Your task to perform on an android device: check google app version Image 0: 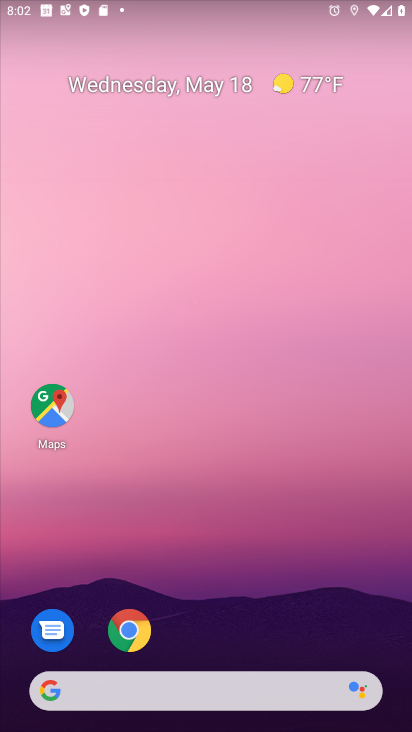
Step 0: drag from (255, 598) to (310, 289)
Your task to perform on an android device: check google app version Image 1: 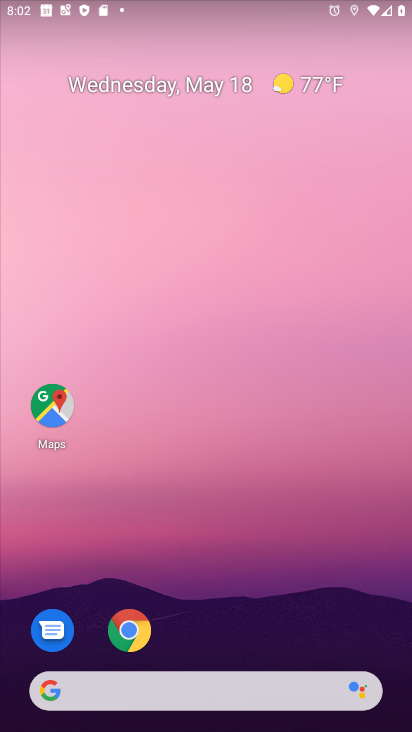
Step 1: drag from (249, 617) to (251, 124)
Your task to perform on an android device: check google app version Image 2: 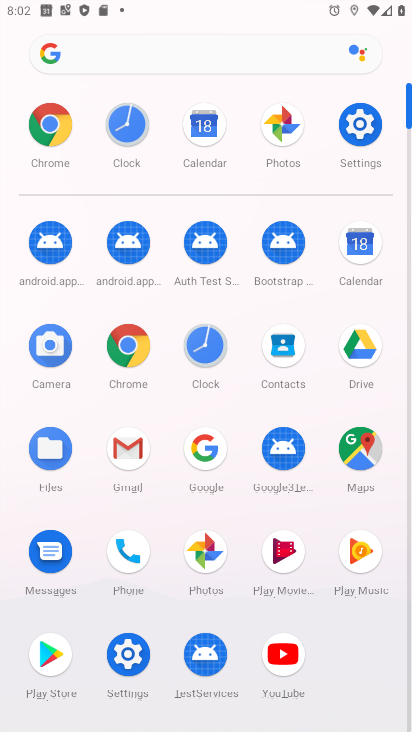
Step 2: click (214, 461)
Your task to perform on an android device: check google app version Image 3: 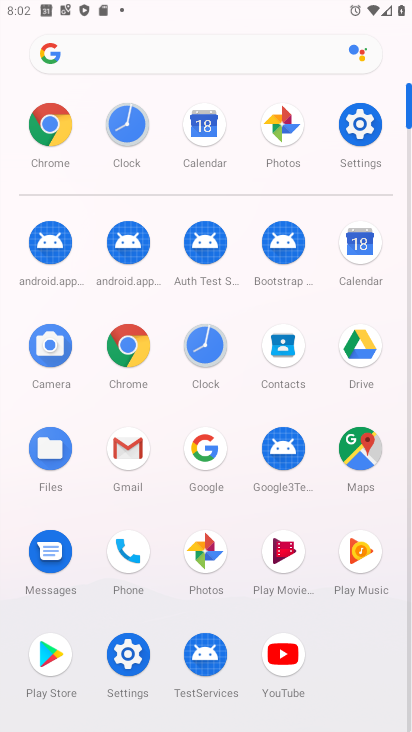
Step 3: click (214, 461)
Your task to perform on an android device: check google app version Image 4: 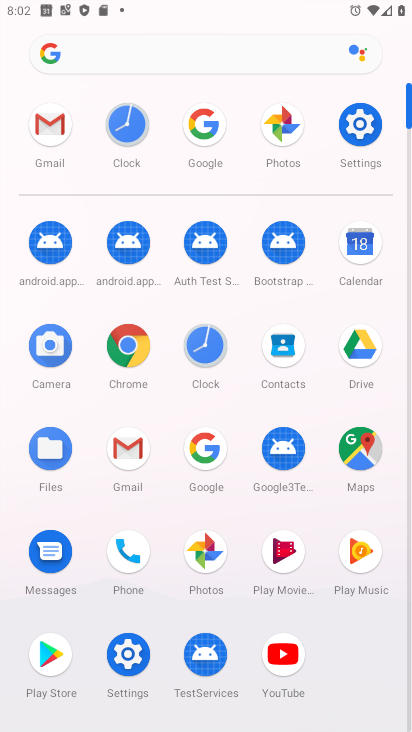
Step 4: click (192, 465)
Your task to perform on an android device: check google app version Image 5: 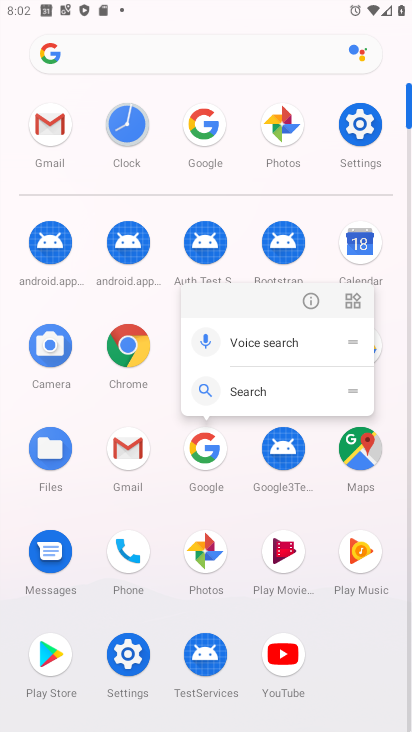
Step 5: click (212, 457)
Your task to perform on an android device: check google app version Image 6: 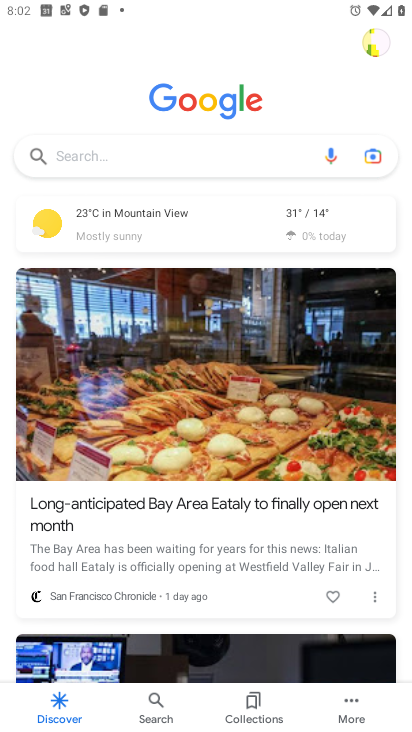
Step 6: click (354, 708)
Your task to perform on an android device: check google app version Image 7: 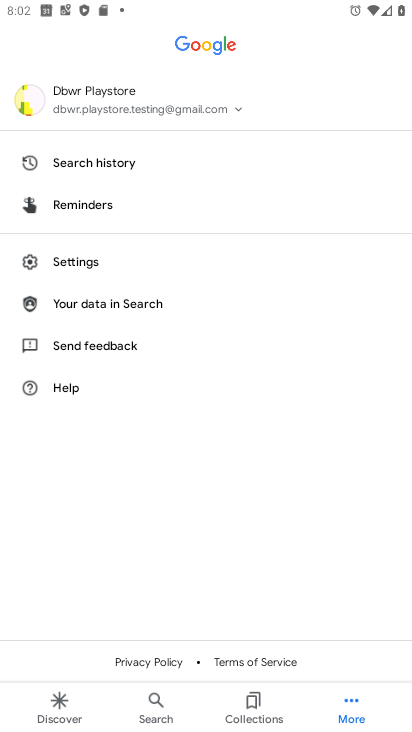
Step 7: click (87, 267)
Your task to perform on an android device: check google app version Image 8: 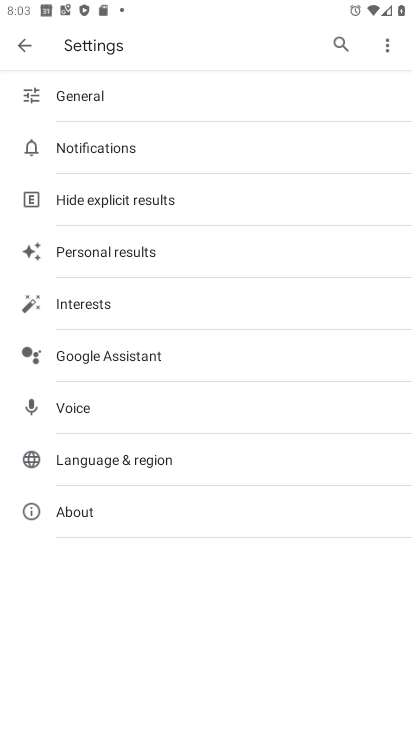
Step 8: click (78, 522)
Your task to perform on an android device: check google app version Image 9: 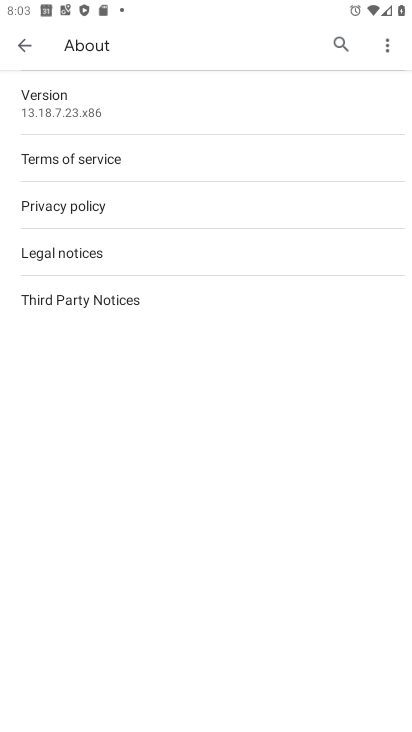
Step 9: task complete